Your task to perform on an android device: open a bookmark in the chrome app Image 0: 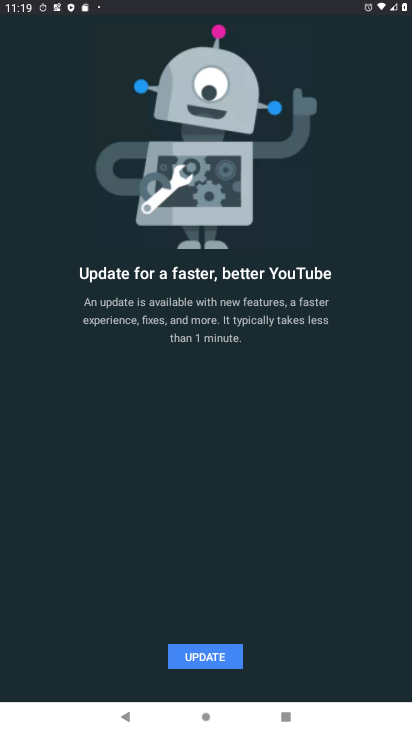
Step 0: press back button
Your task to perform on an android device: open a bookmark in the chrome app Image 1: 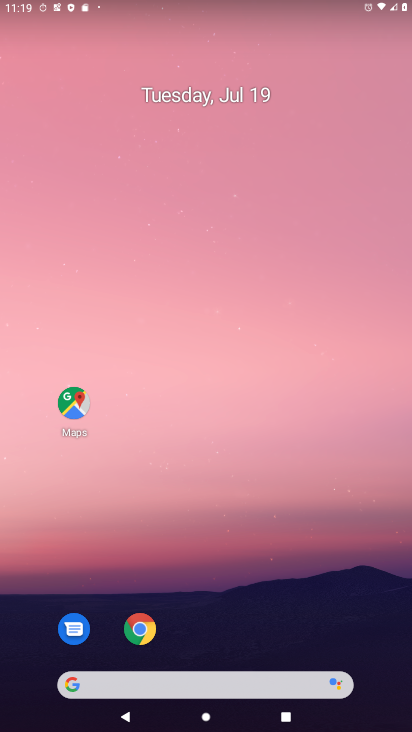
Step 1: click (248, 298)
Your task to perform on an android device: open a bookmark in the chrome app Image 2: 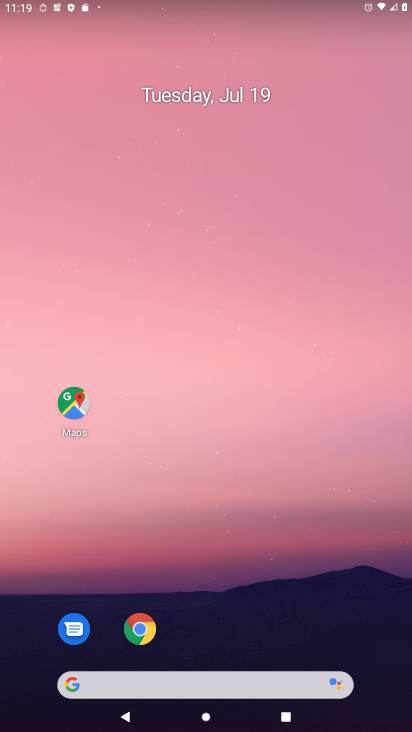
Step 2: drag from (215, 597) to (153, 122)
Your task to perform on an android device: open a bookmark in the chrome app Image 3: 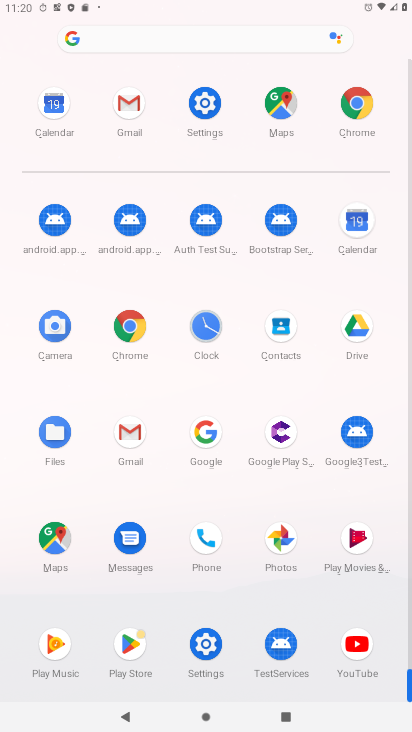
Step 3: click (355, 113)
Your task to perform on an android device: open a bookmark in the chrome app Image 4: 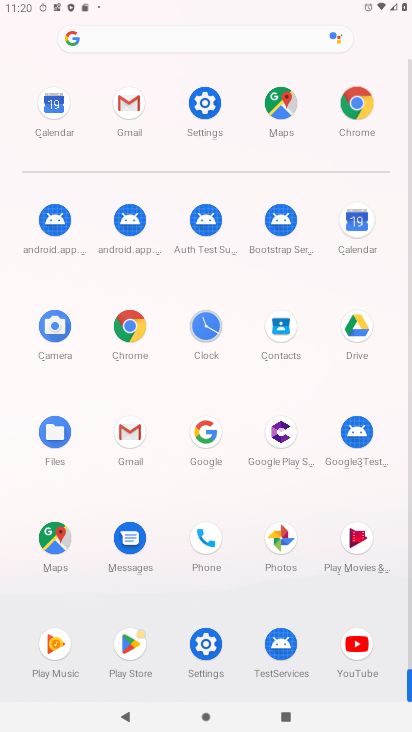
Step 4: click (355, 113)
Your task to perform on an android device: open a bookmark in the chrome app Image 5: 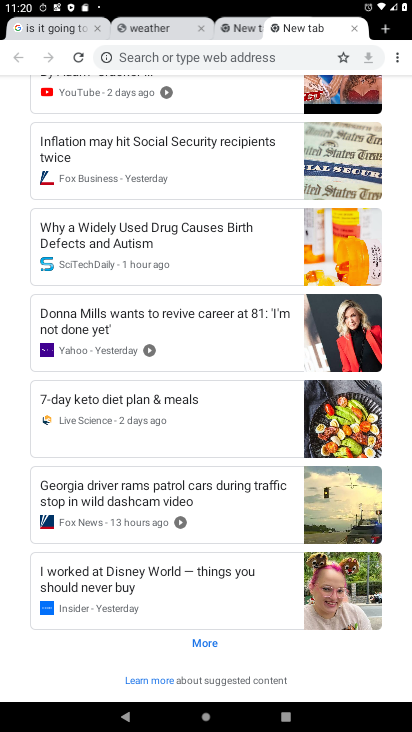
Step 5: drag from (399, 58) to (286, 118)
Your task to perform on an android device: open a bookmark in the chrome app Image 6: 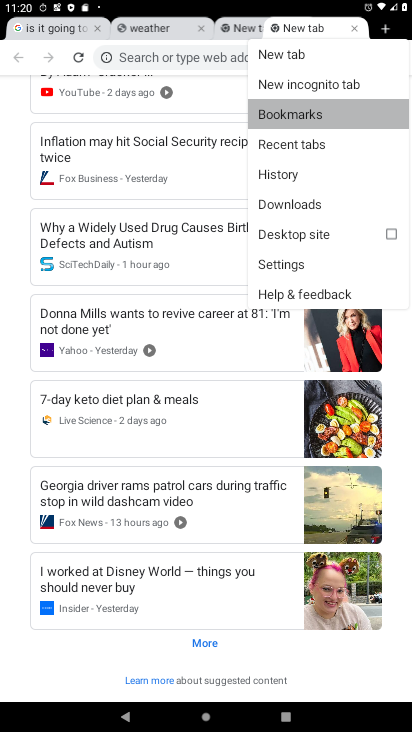
Step 6: click (295, 120)
Your task to perform on an android device: open a bookmark in the chrome app Image 7: 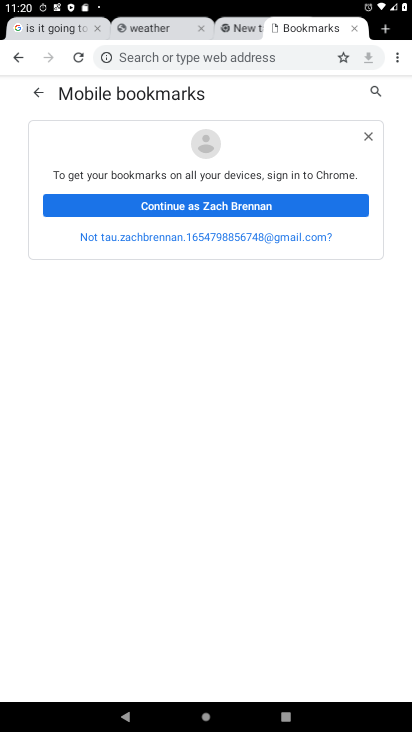
Step 7: task complete